Your task to perform on an android device: turn on notifications settings in the gmail app Image 0: 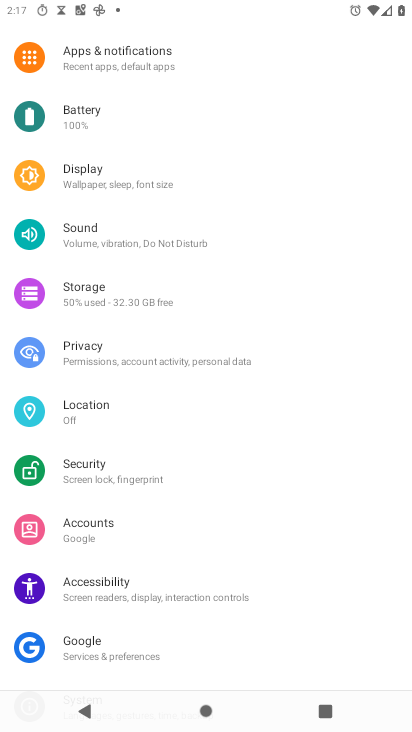
Step 0: press home button
Your task to perform on an android device: turn on notifications settings in the gmail app Image 1: 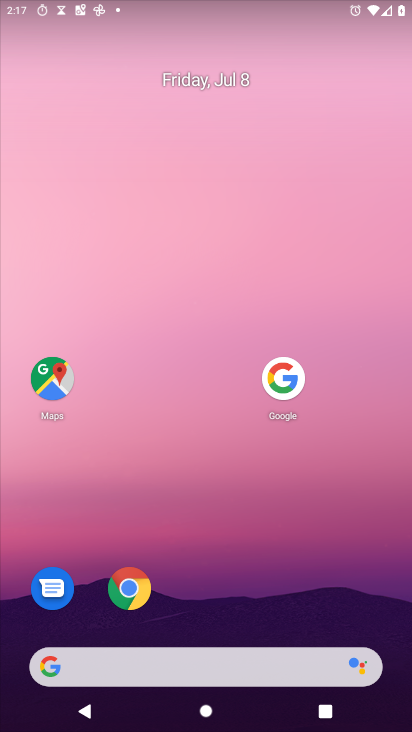
Step 1: drag from (141, 671) to (264, 197)
Your task to perform on an android device: turn on notifications settings in the gmail app Image 2: 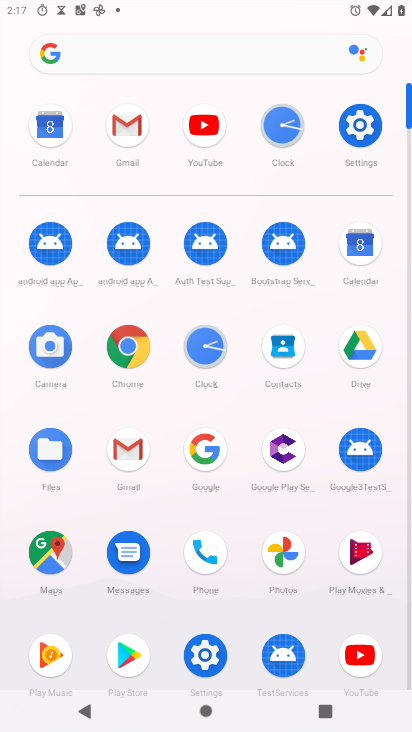
Step 2: click (131, 134)
Your task to perform on an android device: turn on notifications settings in the gmail app Image 3: 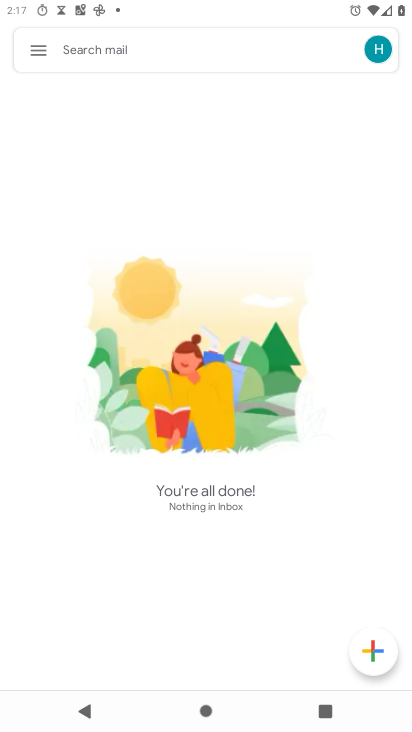
Step 3: click (44, 54)
Your task to perform on an android device: turn on notifications settings in the gmail app Image 4: 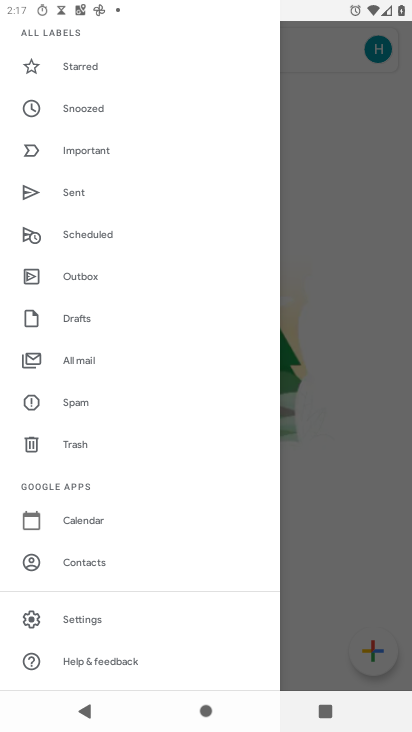
Step 4: click (96, 614)
Your task to perform on an android device: turn on notifications settings in the gmail app Image 5: 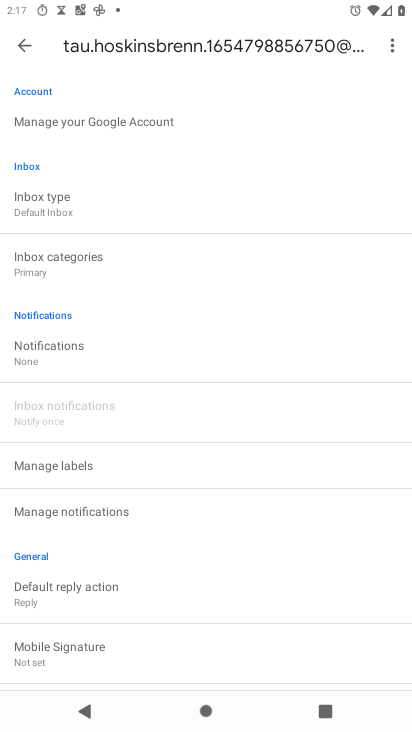
Step 5: click (63, 354)
Your task to perform on an android device: turn on notifications settings in the gmail app Image 6: 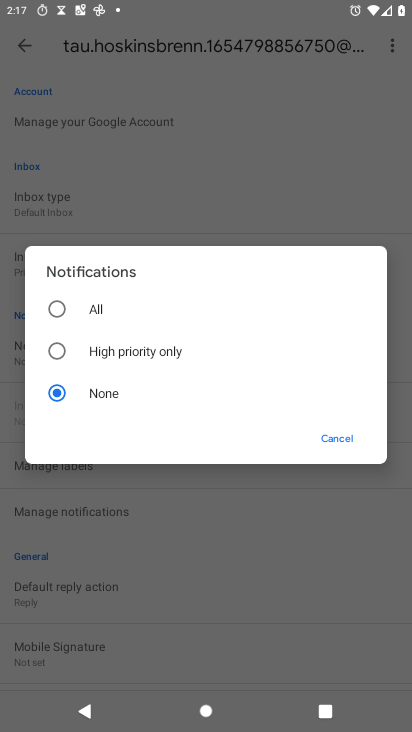
Step 6: click (59, 305)
Your task to perform on an android device: turn on notifications settings in the gmail app Image 7: 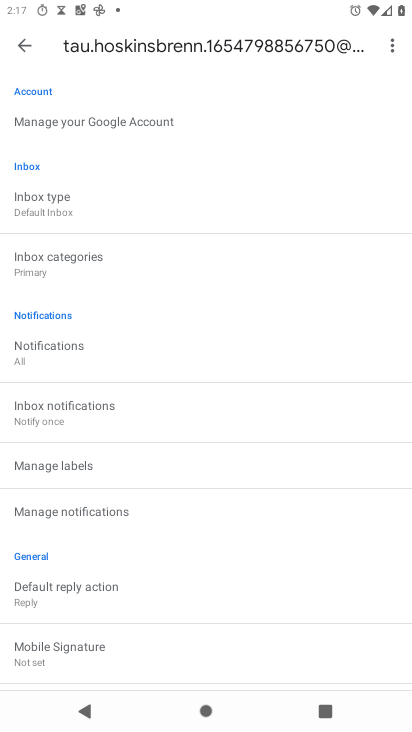
Step 7: task complete